Your task to perform on an android device: Open settings on Google Maps Image 0: 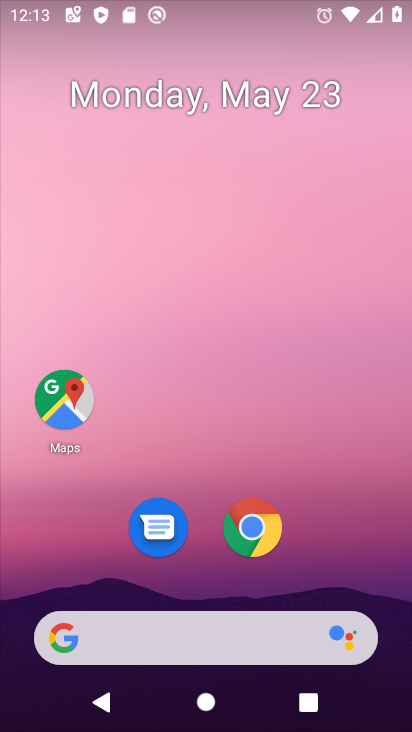
Step 0: click (62, 400)
Your task to perform on an android device: Open settings on Google Maps Image 1: 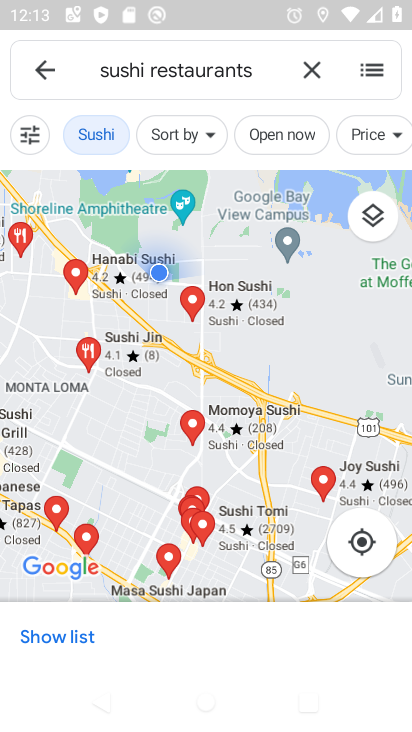
Step 1: click (50, 75)
Your task to perform on an android device: Open settings on Google Maps Image 2: 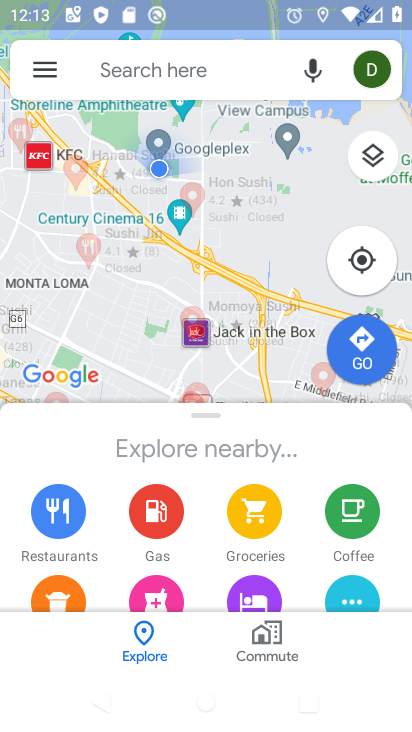
Step 2: click (50, 75)
Your task to perform on an android device: Open settings on Google Maps Image 3: 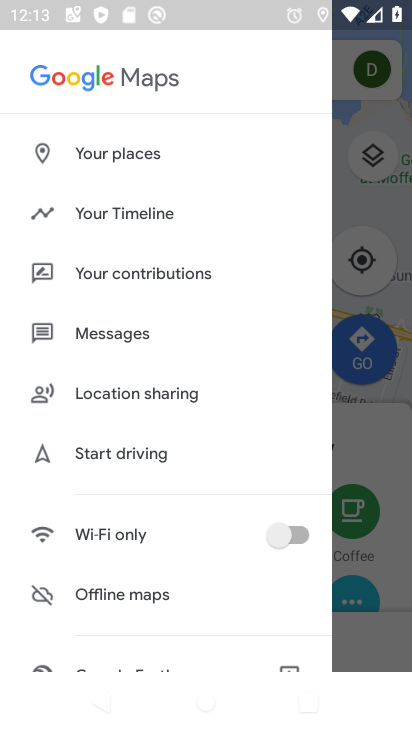
Step 3: drag from (168, 547) to (159, 374)
Your task to perform on an android device: Open settings on Google Maps Image 4: 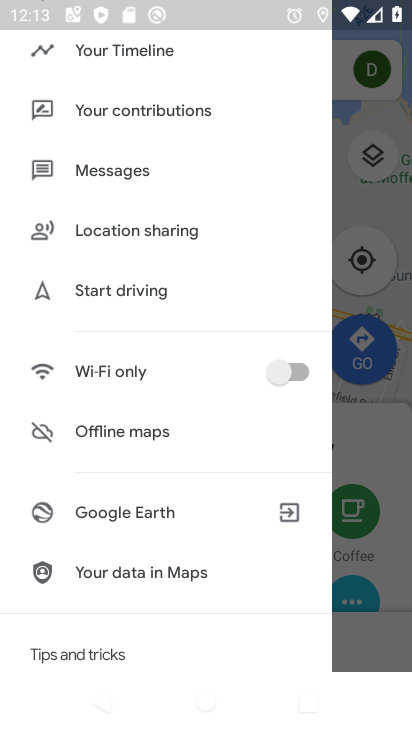
Step 4: drag from (138, 552) to (136, 301)
Your task to perform on an android device: Open settings on Google Maps Image 5: 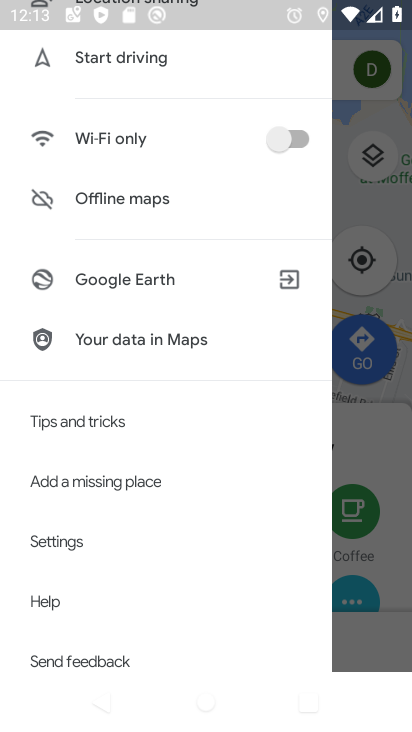
Step 5: click (126, 545)
Your task to perform on an android device: Open settings on Google Maps Image 6: 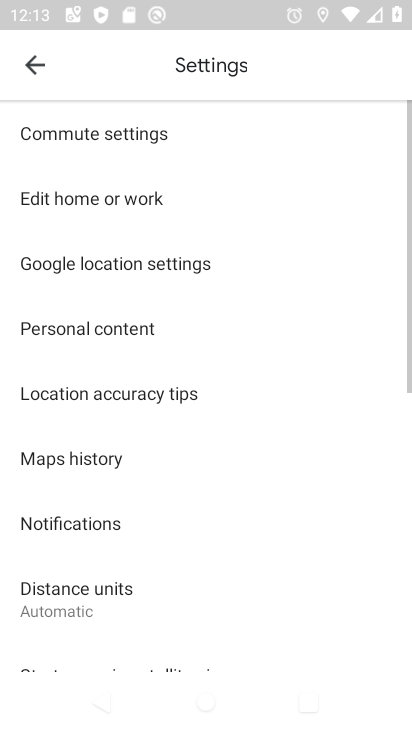
Step 6: task complete